Your task to perform on an android device: find snoozed emails in the gmail app Image 0: 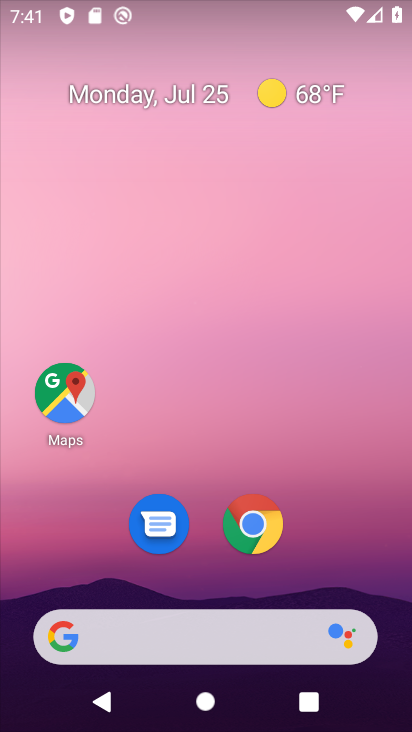
Step 0: drag from (337, 509) to (299, 59)
Your task to perform on an android device: find snoozed emails in the gmail app Image 1: 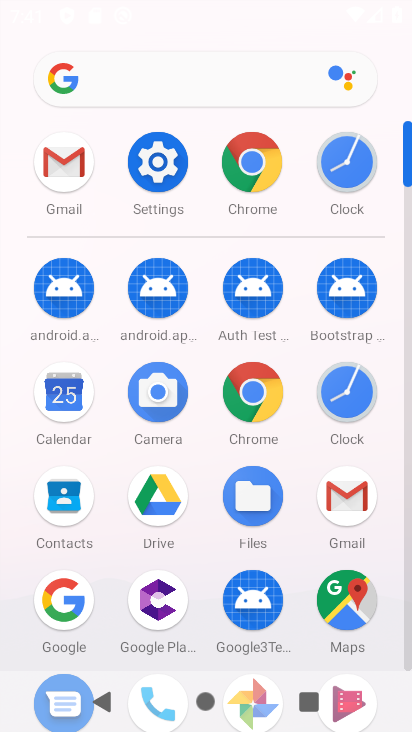
Step 1: click (176, 160)
Your task to perform on an android device: find snoozed emails in the gmail app Image 2: 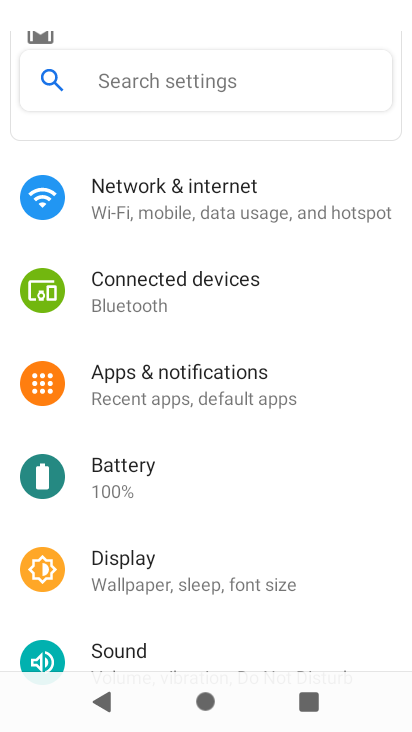
Step 2: drag from (206, 526) to (220, 83)
Your task to perform on an android device: find snoozed emails in the gmail app Image 3: 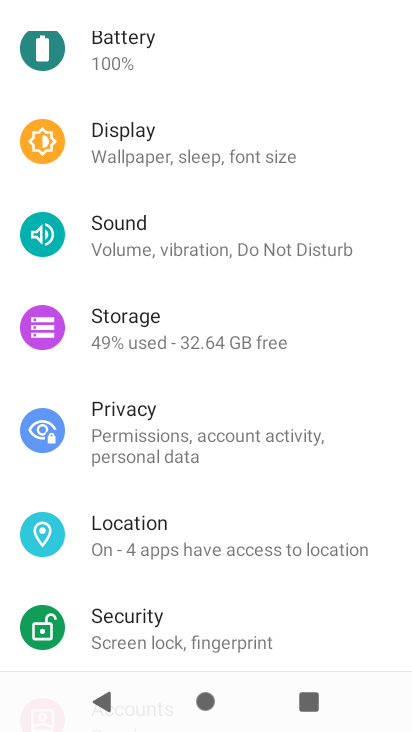
Step 3: drag from (222, 479) to (203, 122)
Your task to perform on an android device: find snoozed emails in the gmail app Image 4: 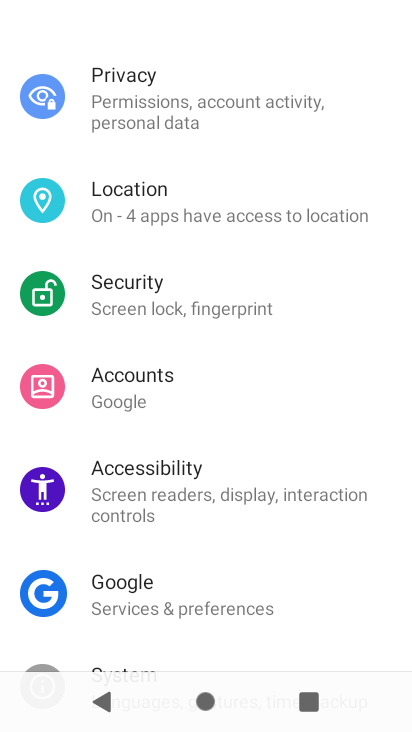
Step 4: press home button
Your task to perform on an android device: find snoozed emails in the gmail app Image 5: 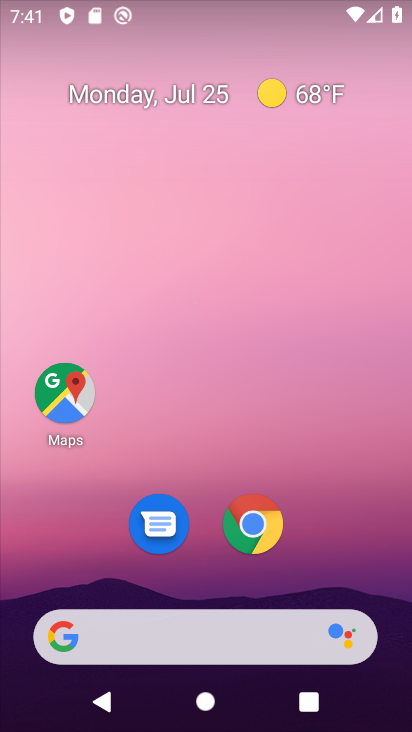
Step 5: drag from (315, 575) to (350, 36)
Your task to perform on an android device: find snoozed emails in the gmail app Image 6: 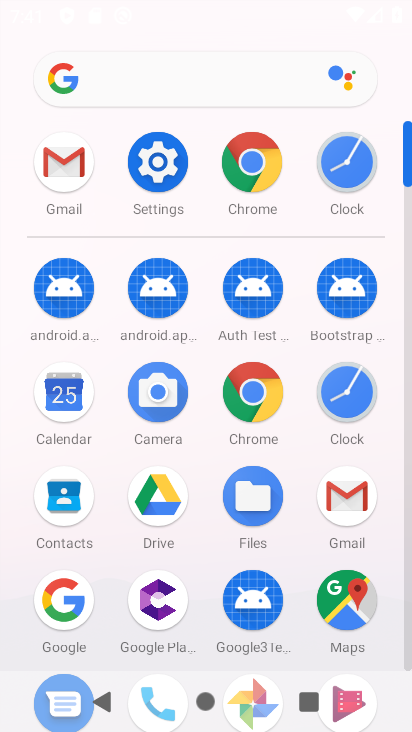
Step 6: click (65, 149)
Your task to perform on an android device: find snoozed emails in the gmail app Image 7: 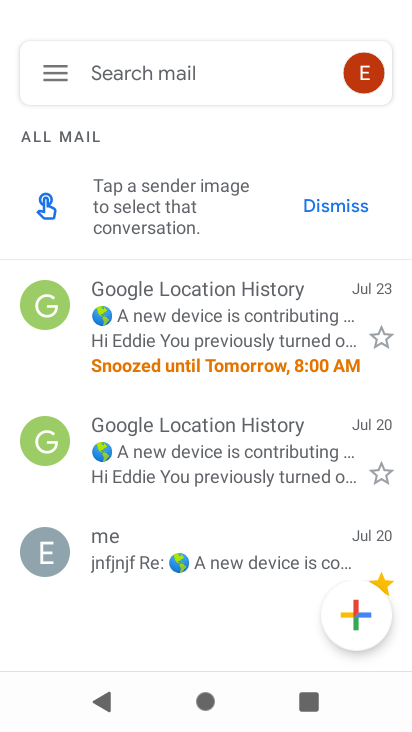
Step 7: click (52, 67)
Your task to perform on an android device: find snoozed emails in the gmail app Image 8: 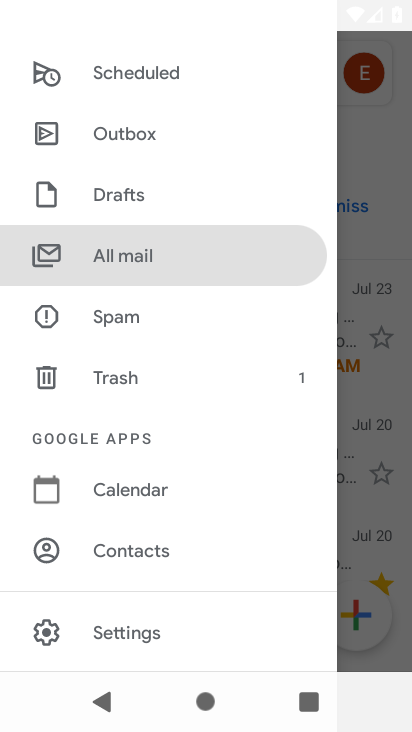
Step 8: drag from (176, 336) to (174, 592)
Your task to perform on an android device: find snoozed emails in the gmail app Image 9: 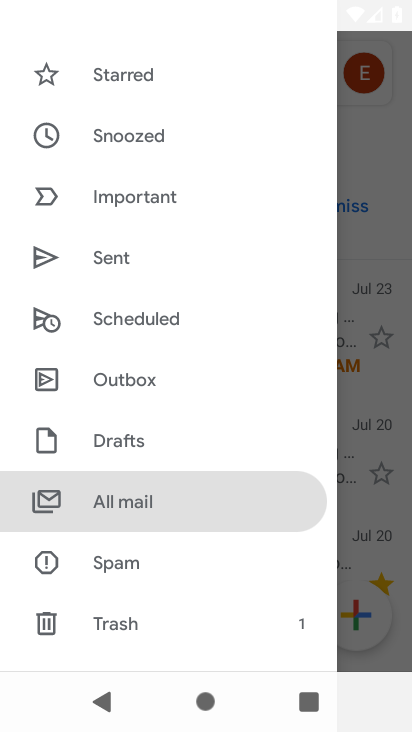
Step 9: click (152, 135)
Your task to perform on an android device: find snoozed emails in the gmail app Image 10: 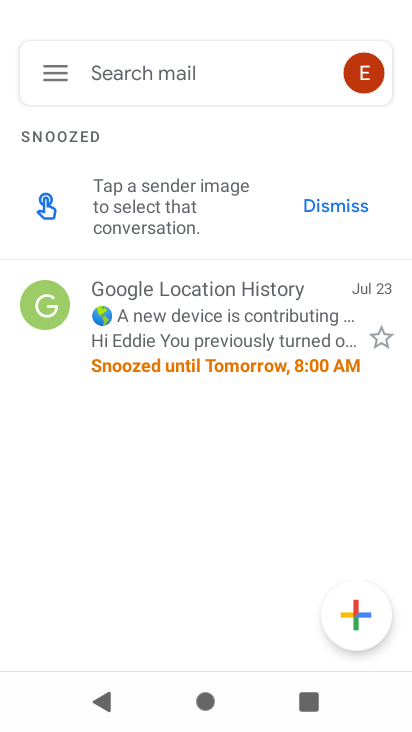
Step 10: task complete